Your task to perform on an android device: Do I have any events tomorrow? Image 0: 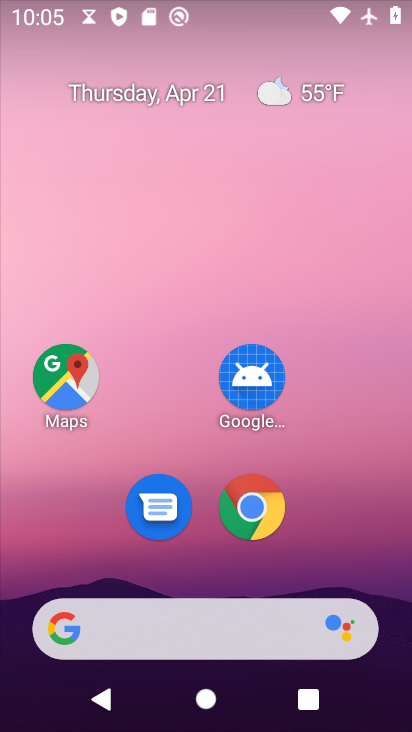
Step 0: drag from (221, 417) to (234, 215)
Your task to perform on an android device: Do I have any events tomorrow? Image 1: 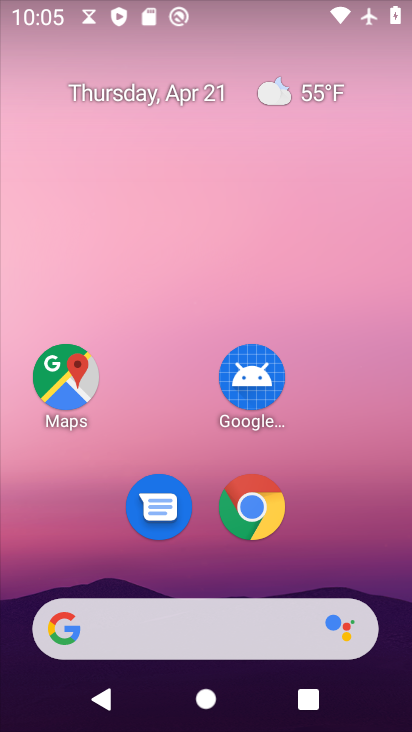
Step 1: drag from (311, 522) to (347, 175)
Your task to perform on an android device: Do I have any events tomorrow? Image 2: 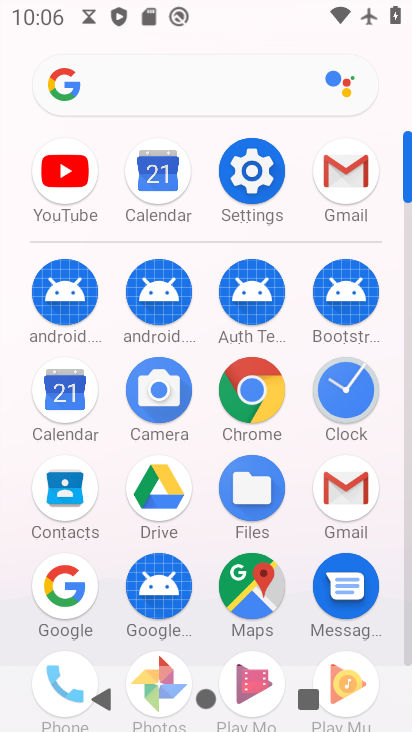
Step 2: click (66, 380)
Your task to perform on an android device: Do I have any events tomorrow? Image 3: 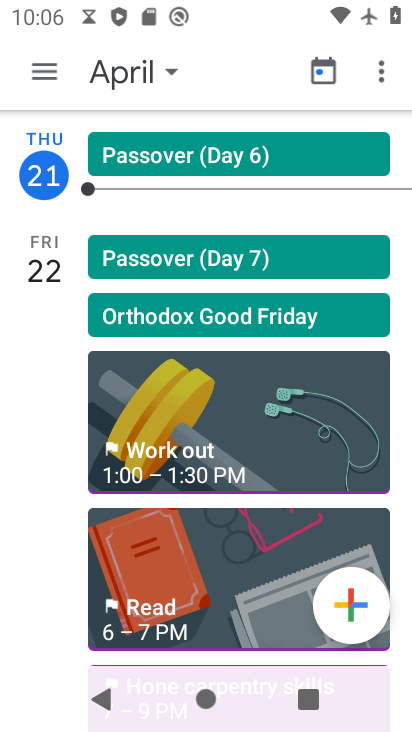
Step 3: click (46, 67)
Your task to perform on an android device: Do I have any events tomorrow? Image 4: 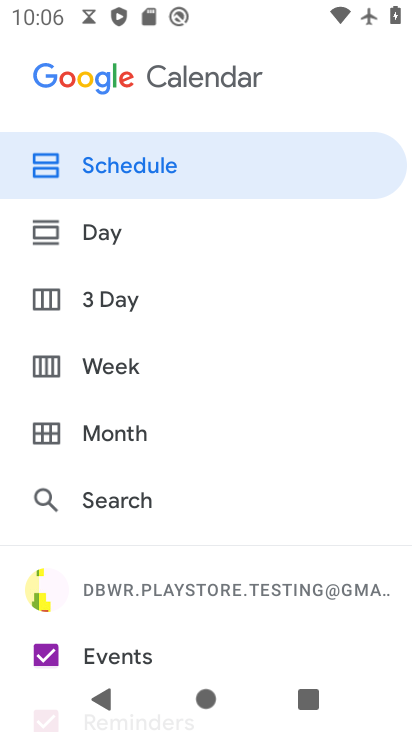
Step 4: click (140, 433)
Your task to perform on an android device: Do I have any events tomorrow? Image 5: 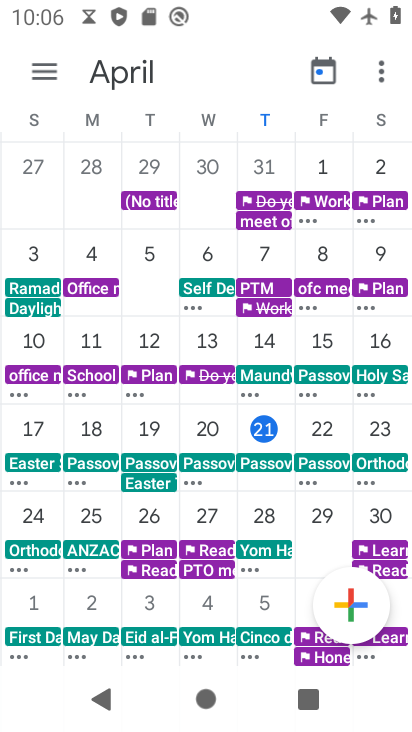
Step 5: click (272, 430)
Your task to perform on an android device: Do I have any events tomorrow? Image 6: 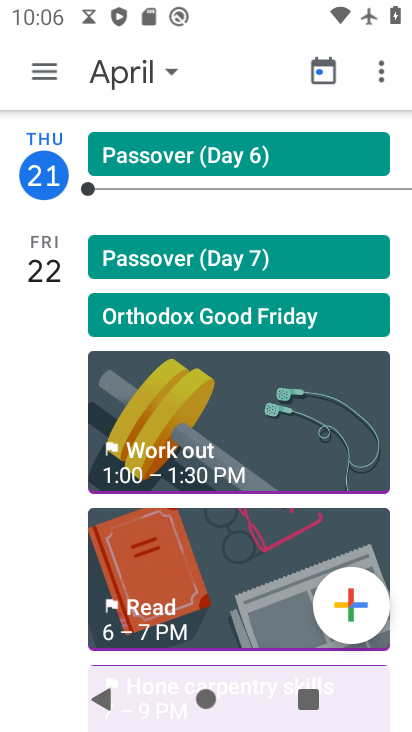
Step 6: drag from (70, 551) to (159, 208)
Your task to perform on an android device: Do I have any events tomorrow? Image 7: 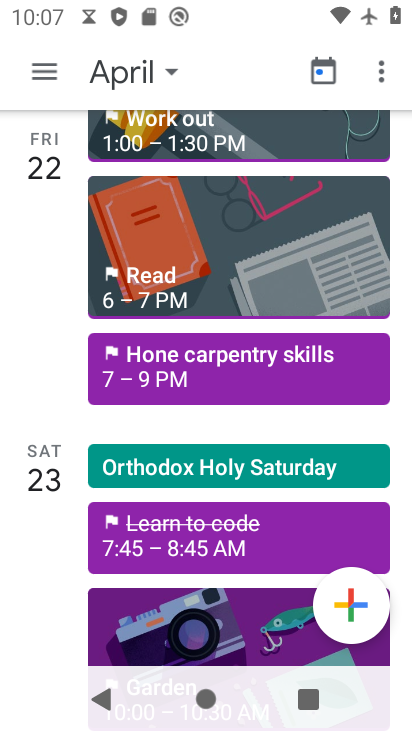
Step 7: drag from (89, 454) to (89, 564)
Your task to perform on an android device: Do I have any events tomorrow? Image 8: 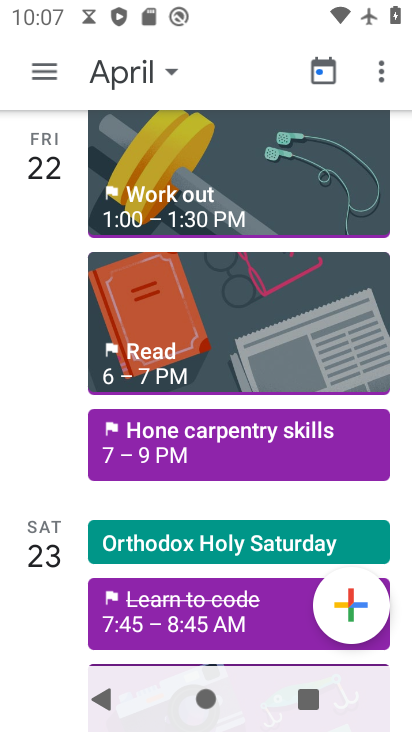
Step 8: click (37, 161)
Your task to perform on an android device: Do I have any events tomorrow? Image 9: 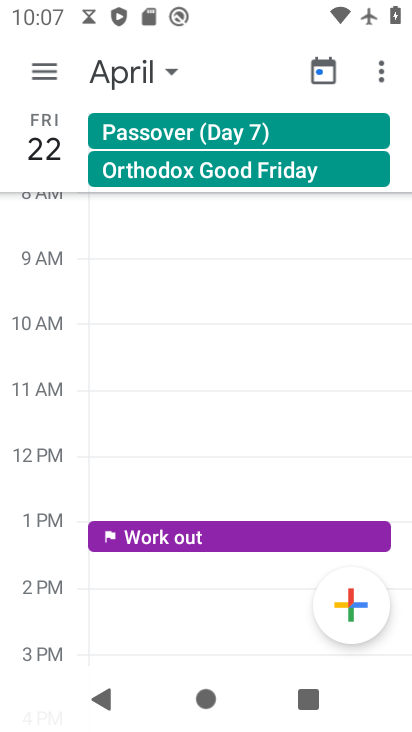
Step 9: click (48, 138)
Your task to perform on an android device: Do I have any events tomorrow? Image 10: 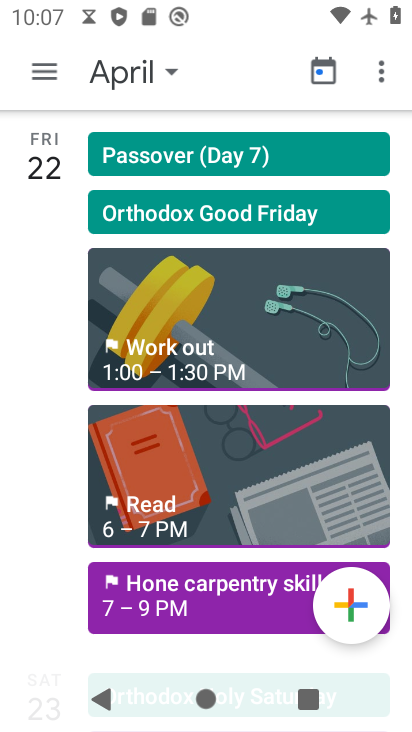
Step 10: click (191, 303)
Your task to perform on an android device: Do I have any events tomorrow? Image 11: 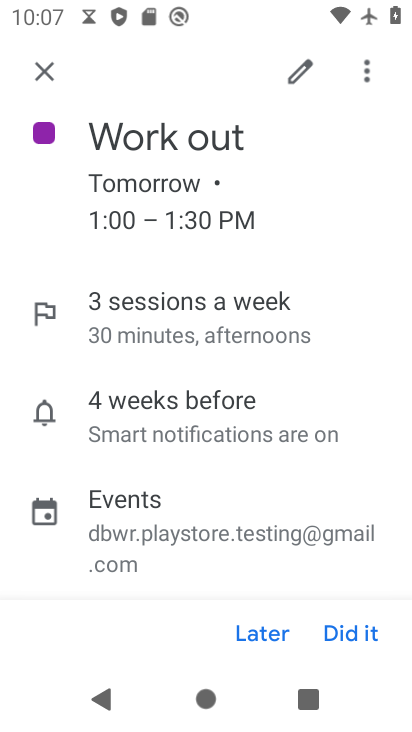
Step 11: click (100, 510)
Your task to perform on an android device: Do I have any events tomorrow? Image 12: 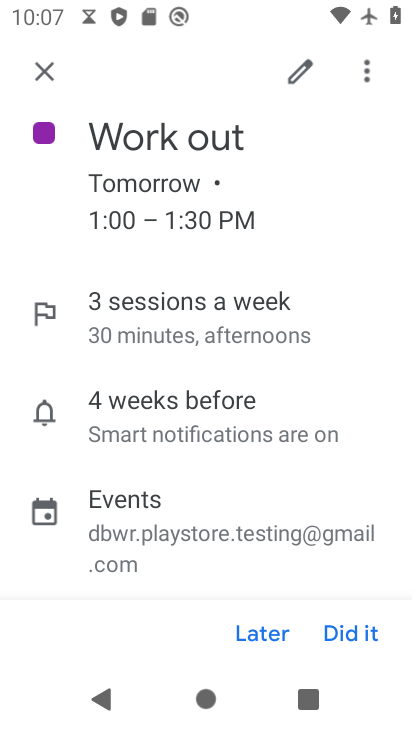
Step 12: click (62, 65)
Your task to perform on an android device: Do I have any events tomorrow? Image 13: 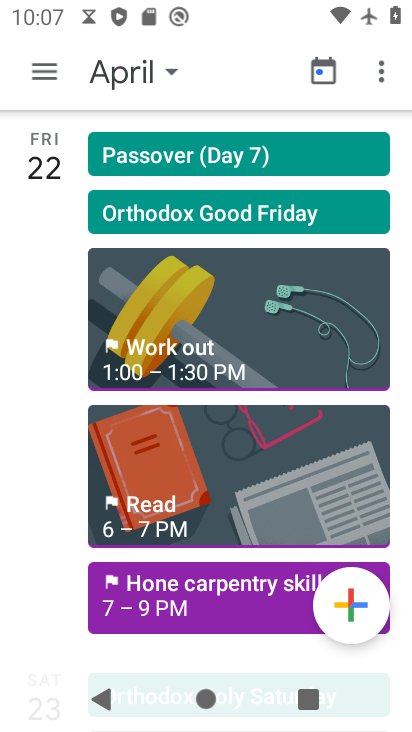
Step 13: task complete